Your task to perform on an android device: Open the calendar app, open the side menu, and click the "Day" option Image 0: 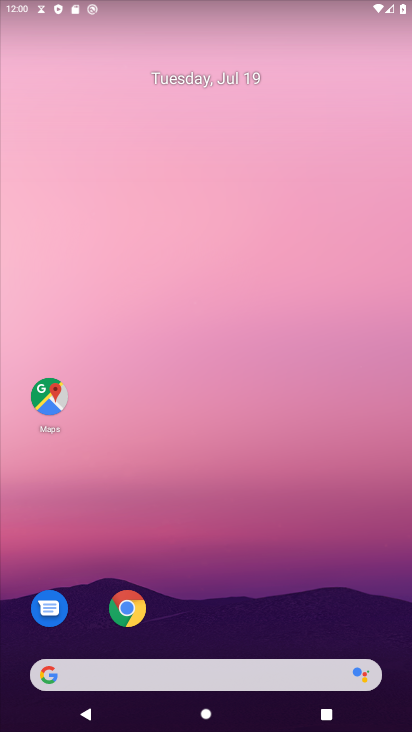
Step 0: drag from (294, 678) to (327, 96)
Your task to perform on an android device: Open the calendar app, open the side menu, and click the "Day" option Image 1: 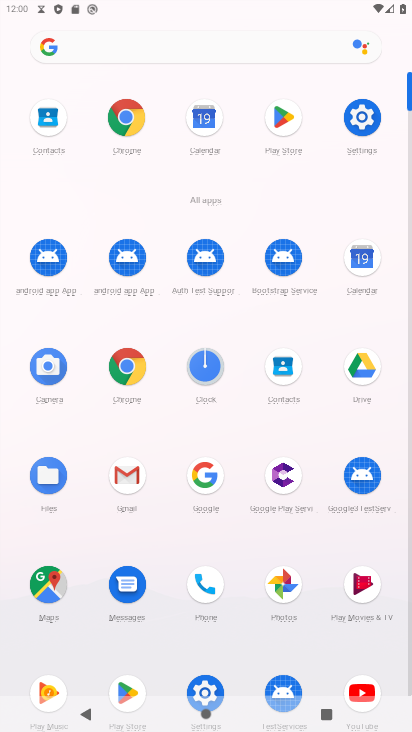
Step 1: click (359, 245)
Your task to perform on an android device: Open the calendar app, open the side menu, and click the "Day" option Image 2: 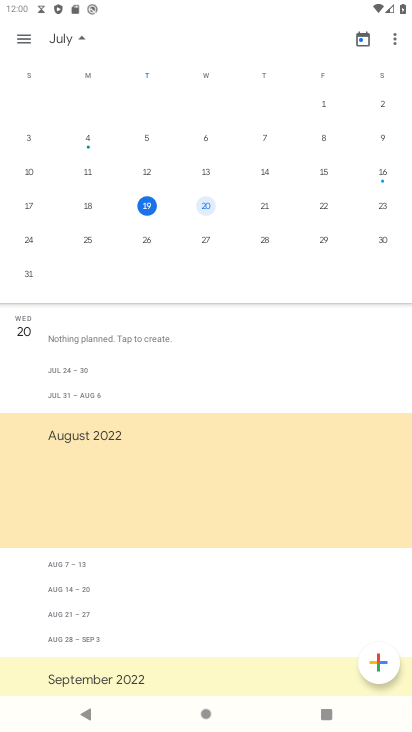
Step 2: click (19, 40)
Your task to perform on an android device: Open the calendar app, open the side menu, and click the "Day" option Image 3: 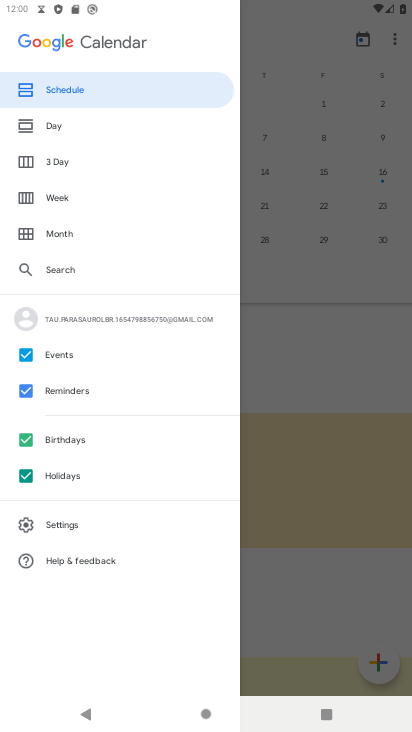
Step 3: click (53, 116)
Your task to perform on an android device: Open the calendar app, open the side menu, and click the "Day" option Image 4: 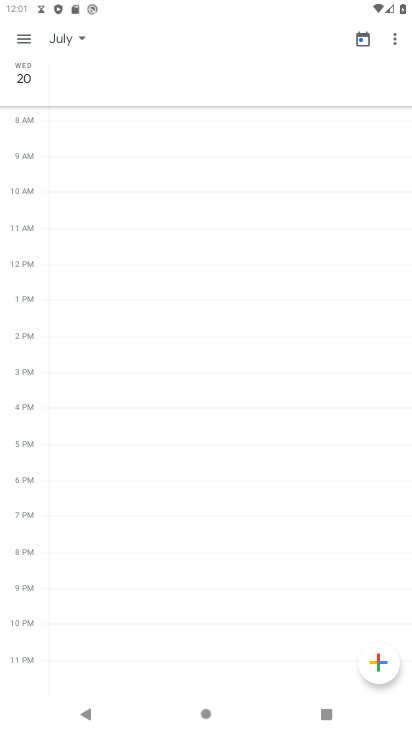
Step 4: task complete